Your task to perform on an android device: Check the weather Image 0: 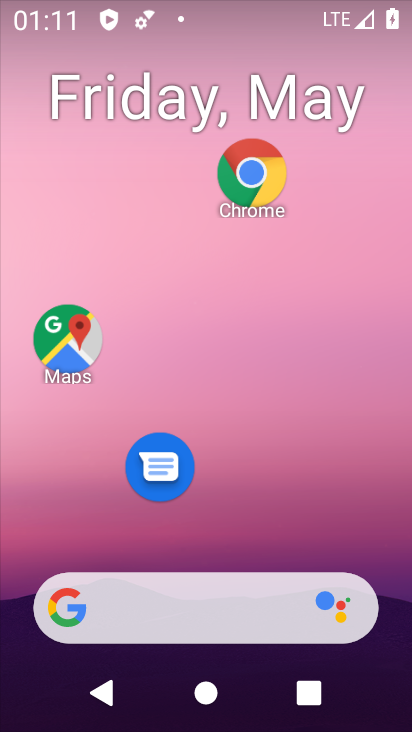
Step 0: press home button
Your task to perform on an android device: Check the weather Image 1: 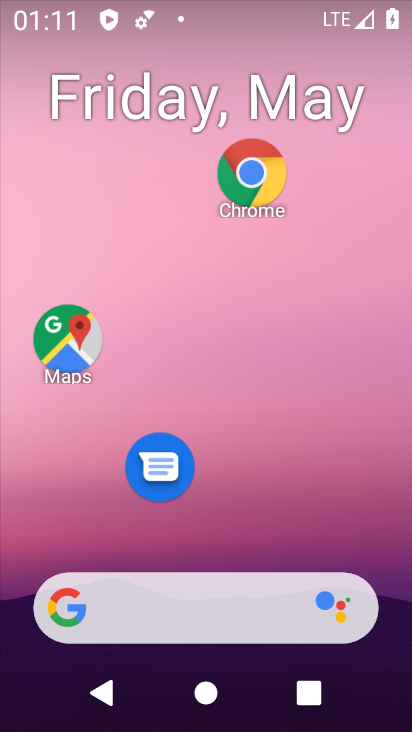
Step 1: drag from (236, 652) to (223, 237)
Your task to perform on an android device: Check the weather Image 2: 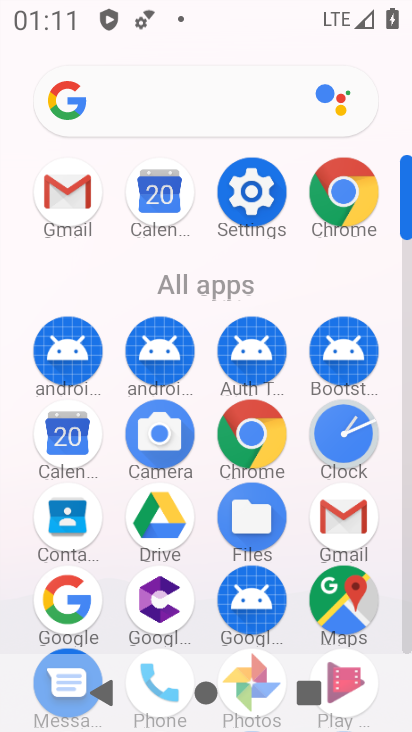
Step 2: click (148, 112)
Your task to perform on an android device: Check the weather Image 3: 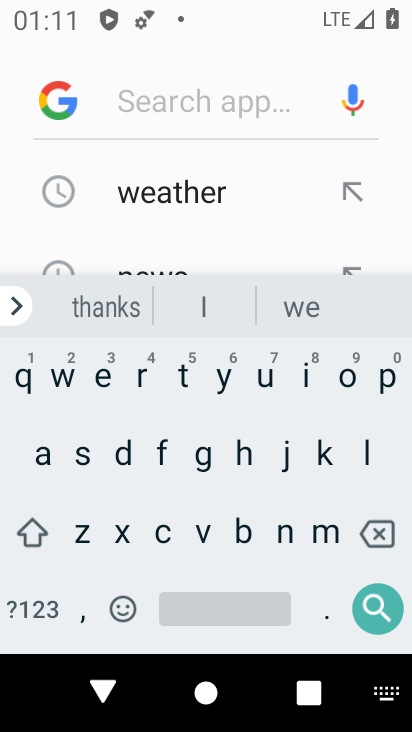
Step 3: click (168, 205)
Your task to perform on an android device: Check the weather Image 4: 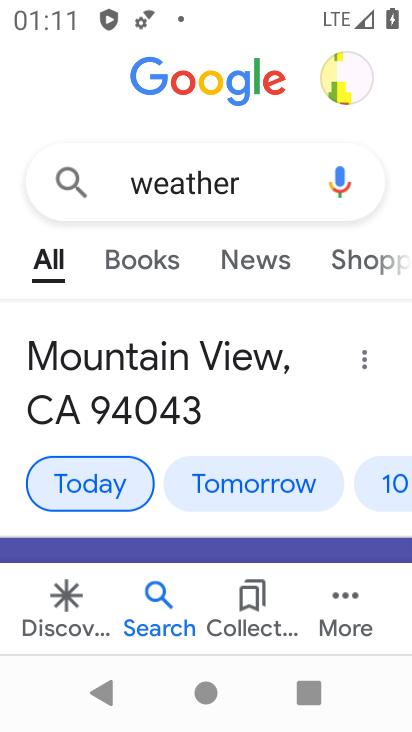
Step 4: task complete